Your task to perform on an android device: see sites visited before in the chrome app Image 0: 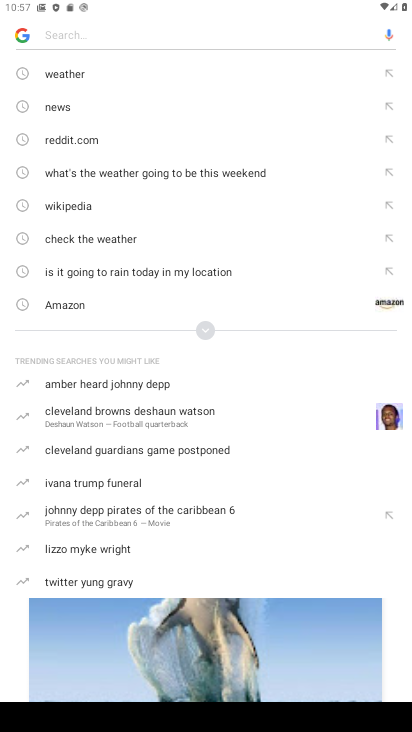
Step 0: press home button
Your task to perform on an android device: see sites visited before in the chrome app Image 1: 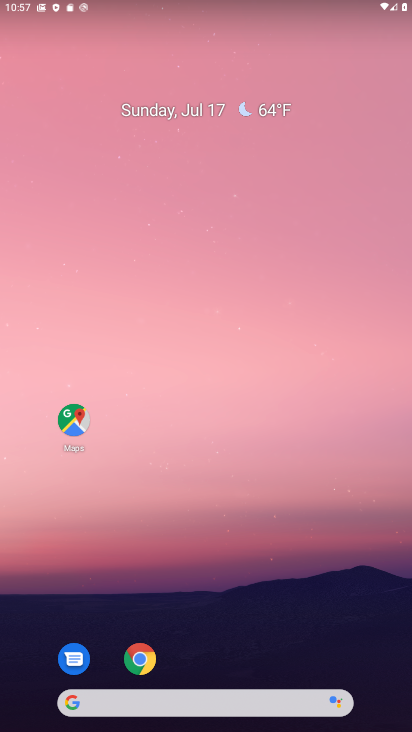
Step 1: click (134, 659)
Your task to perform on an android device: see sites visited before in the chrome app Image 2: 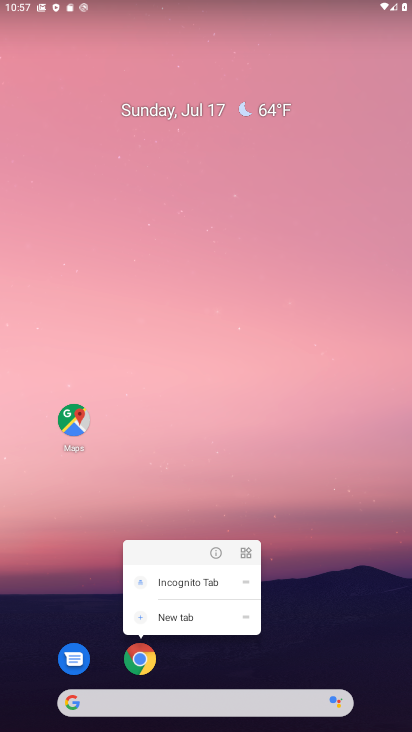
Step 2: click (148, 661)
Your task to perform on an android device: see sites visited before in the chrome app Image 3: 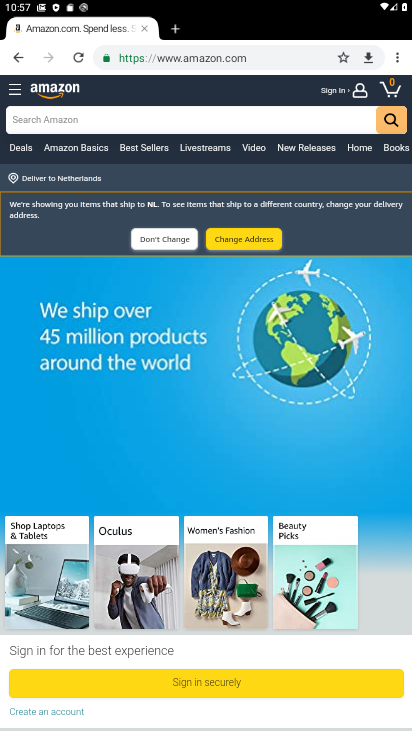
Step 3: click (396, 58)
Your task to perform on an android device: see sites visited before in the chrome app Image 4: 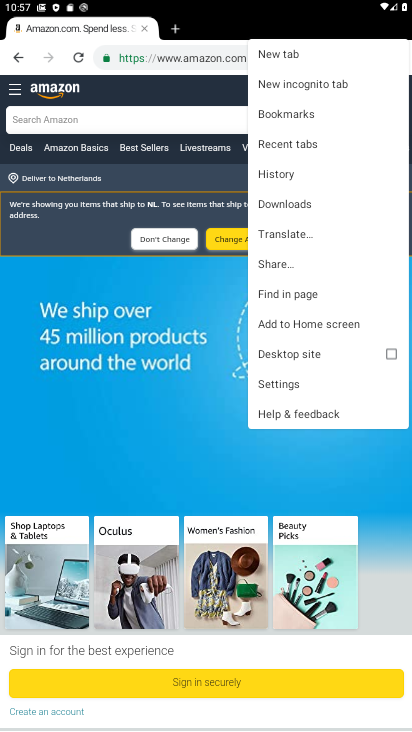
Step 4: click (176, 29)
Your task to perform on an android device: see sites visited before in the chrome app Image 5: 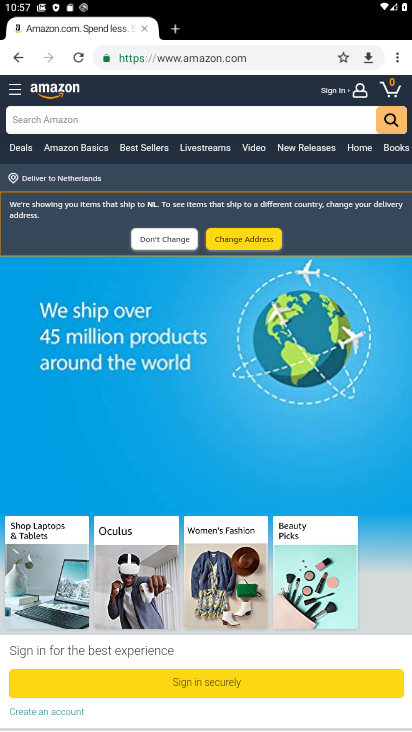
Step 5: click (175, 29)
Your task to perform on an android device: see sites visited before in the chrome app Image 6: 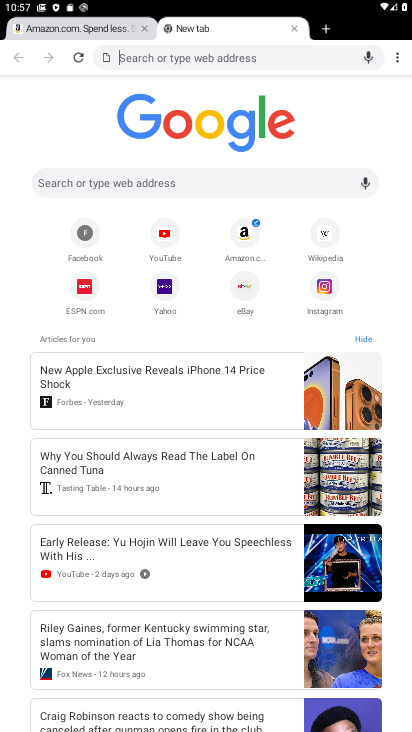
Step 6: click (399, 61)
Your task to perform on an android device: see sites visited before in the chrome app Image 7: 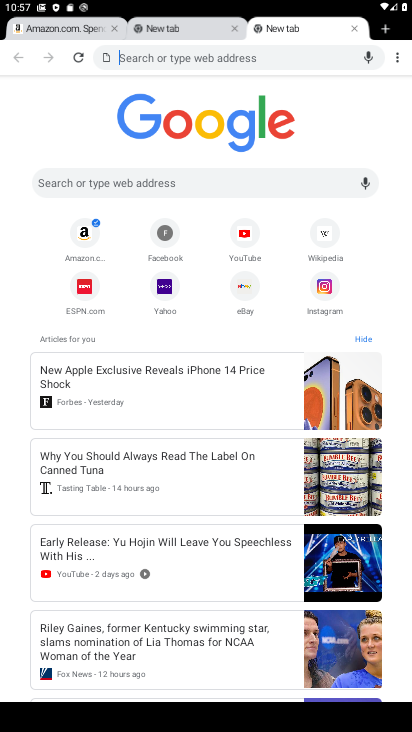
Step 7: click (399, 60)
Your task to perform on an android device: see sites visited before in the chrome app Image 8: 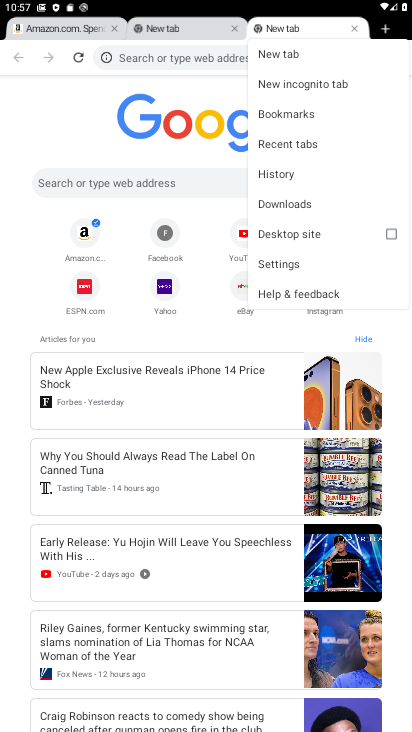
Step 8: click (280, 174)
Your task to perform on an android device: see sites visited before in the chrome app Image 9: 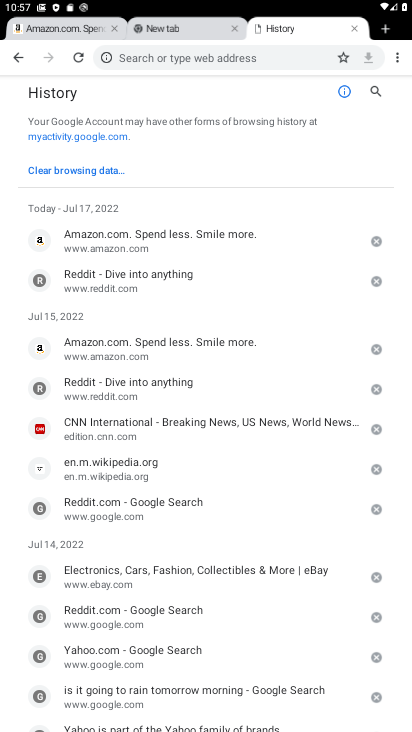
Step 9: task complete